Your task to perform on an android device: manage bookmarks in the chrome app Image 0: 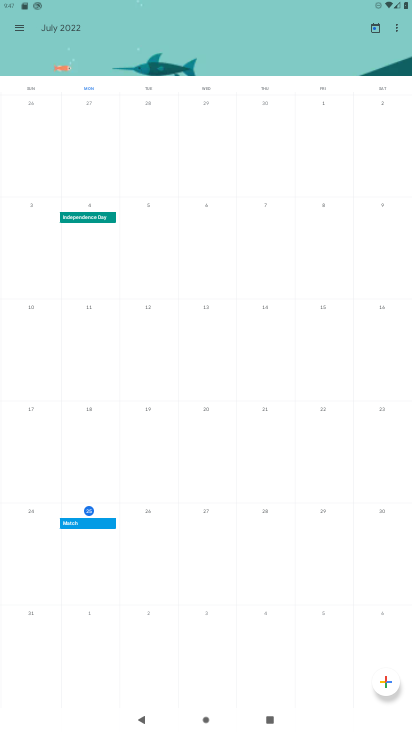
Step 0: press home button
Your task to perform on an android device: manage bookmarks in the chrome app Image 1: 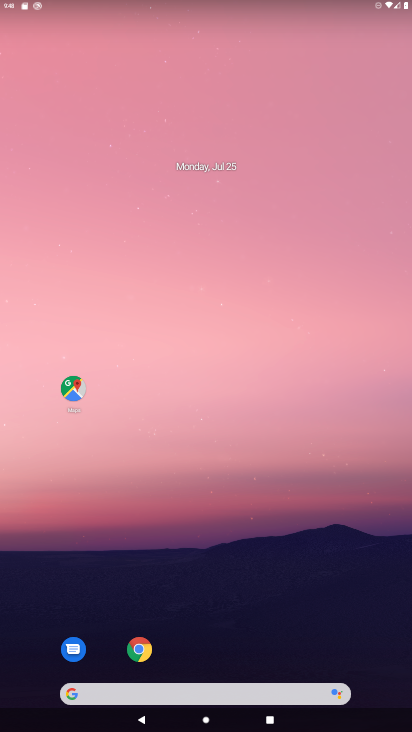
Step 1: click (140, 652)
Your task to perform on an android device: manage bookmarks in the chrome app Image 2: 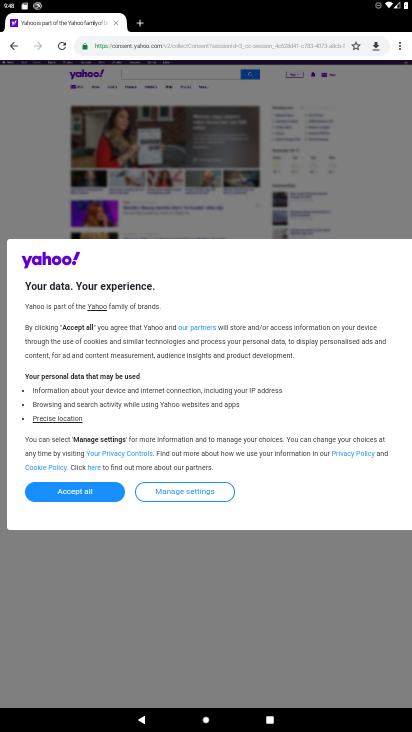
Step 2: click (394, 47)
Your task to perform on an android device: manage bookmarks in the chrome app Image 3: 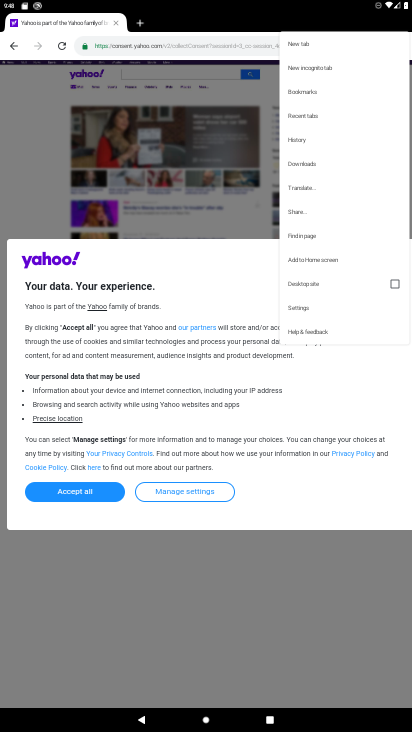
Step 3: click (308, 91)
Your task to perform on an android device: manage bookmarks in the chrome app Image 4: 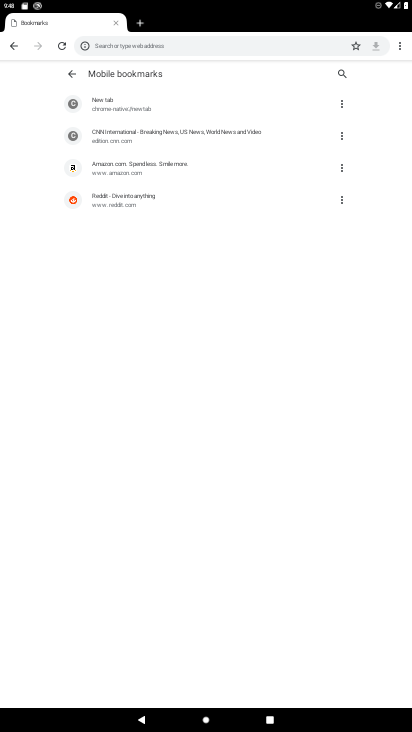
Step 4: click (335, 99)
Your task to perform on an android device: manage bookmarks in the chrome app Image 5: 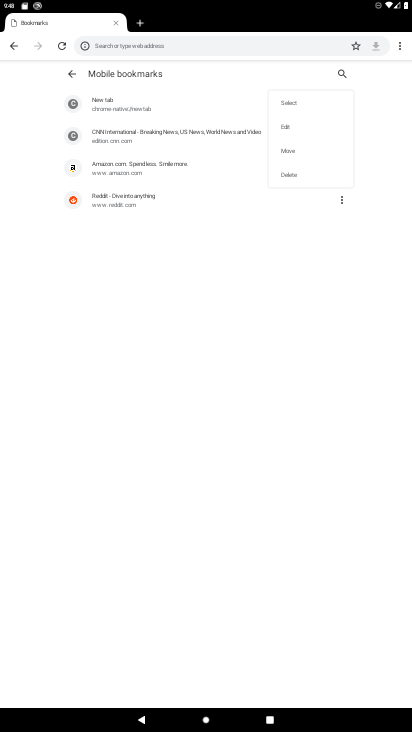
Step 5: click (299, 99)
Your task to perform on an android device: manage bookmarks in the chrome app Image 6: 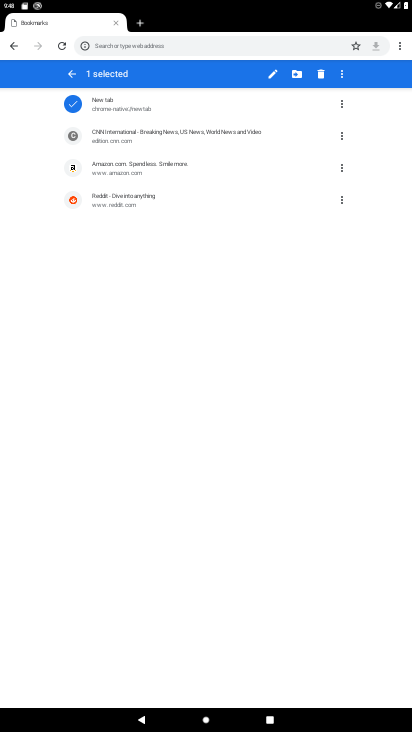
Step 6: click (145, 132)
Your task to perform on an android device: manage bookmarks in the chrome app Image 7: 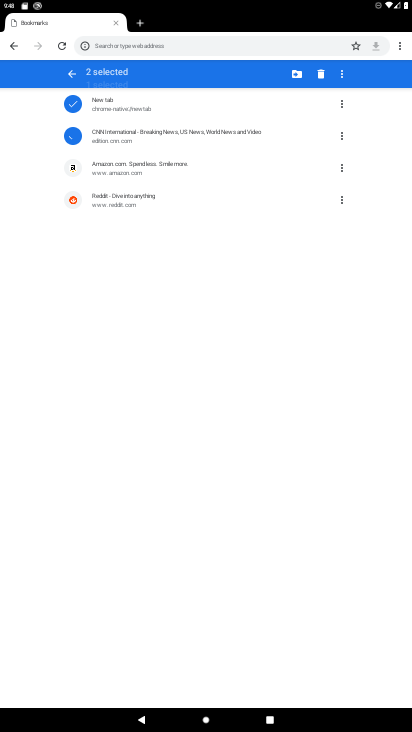
Step 7: click (138, 172)
Your task to perform on an android device: manage bookmarks in the chrome app Image 8: 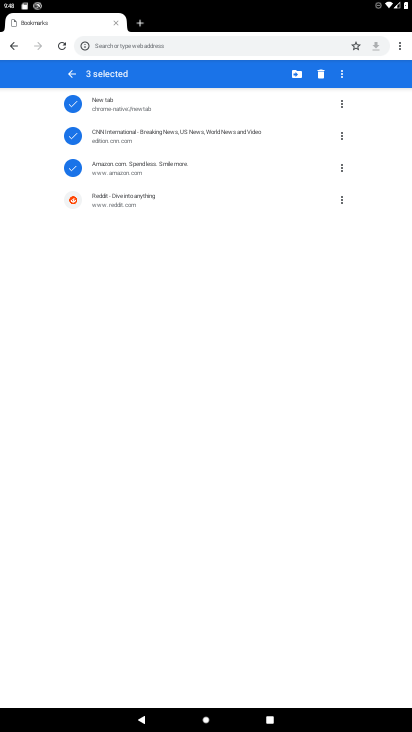
Step 8: click (122, 192)
Your task to perform on an android device: manage bookmarks in the chrome app Image 9: 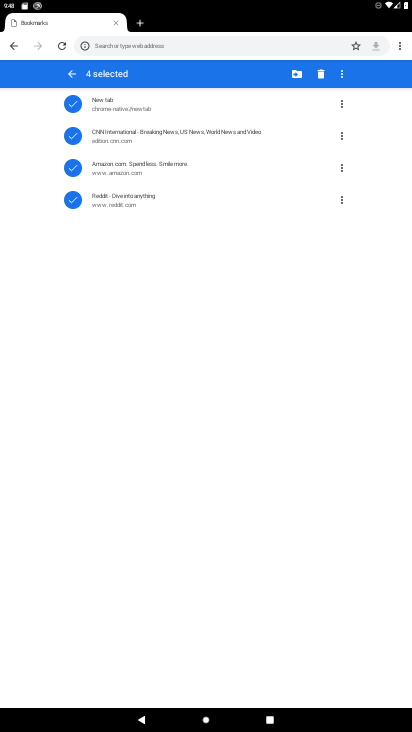
Step 9: click (296, 75)
Your task to perform on an android device: manage bookmarks in the chrome app Image 10: 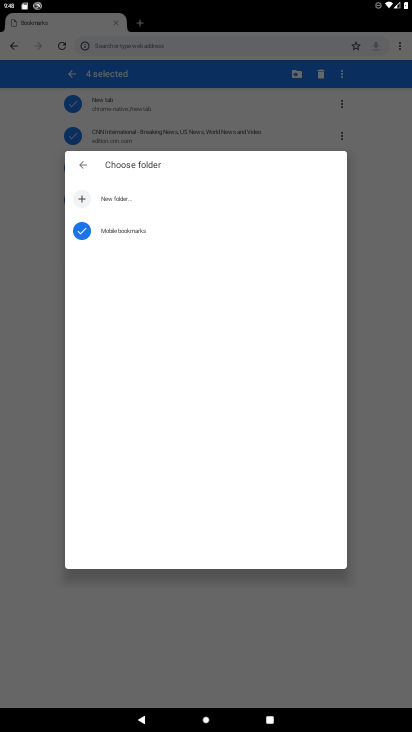
Step 10: click (127, 192)
Your task to perform on an android device: manage bookmarks in the chrome app Image 11: 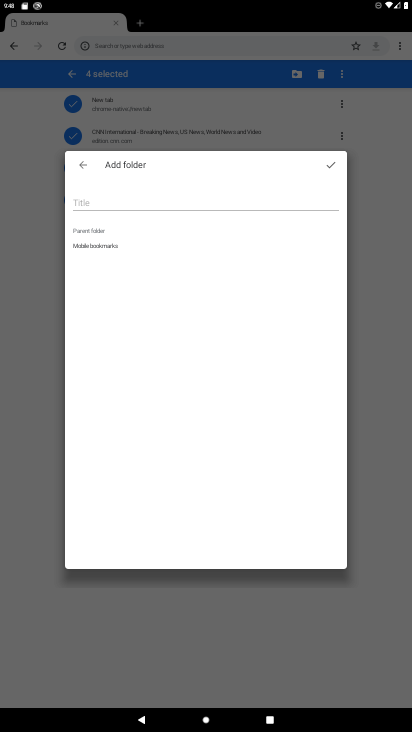
Step 11: click (262, 200)
Your task to perform on an android device: manage bookmarks in the chrome app Image 12: 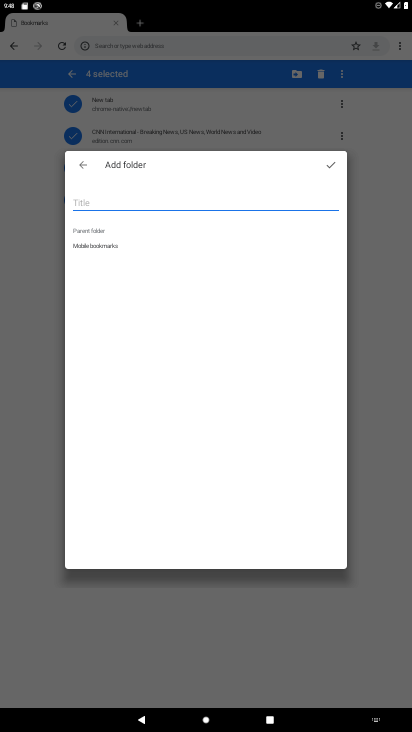
Step 12: type "tilted"
Your task to perform on an android device: manage bookmarks in the chrome app Image 13: 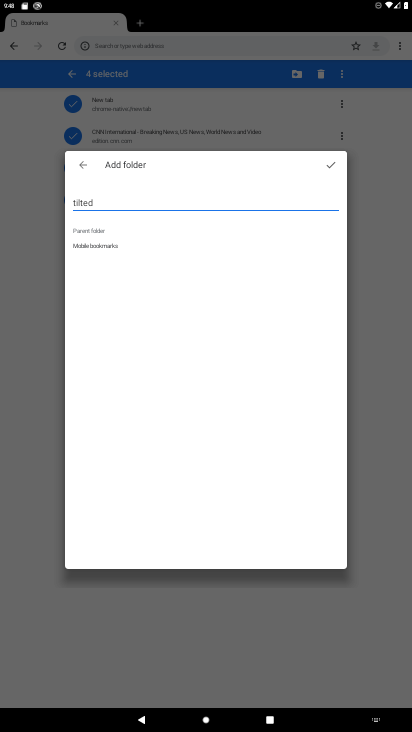
Step 13: click (338, 157)
Your task to perform on an android device: manage bookmarks in the chrome app Image 14: 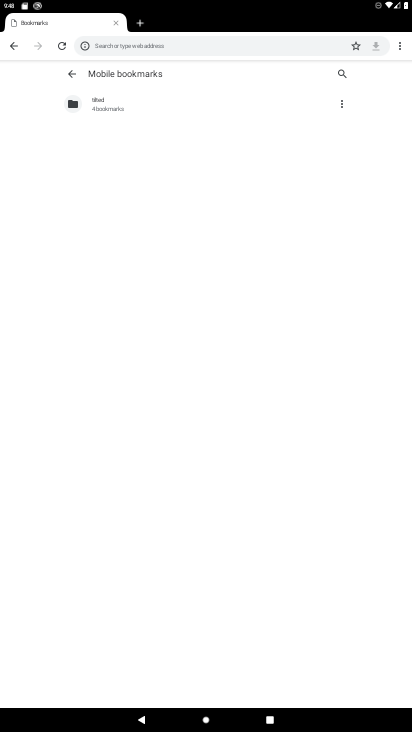
Step 14: task complete